Your task to perform on an android device: delete browsing data in the chrome app Image 0: 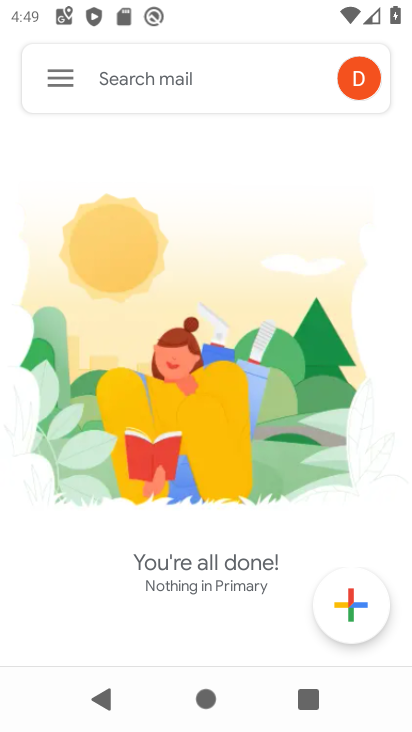
Step 0: press home button
Your task to perform on an android device: delete browsing data in the chrome app Image 1: 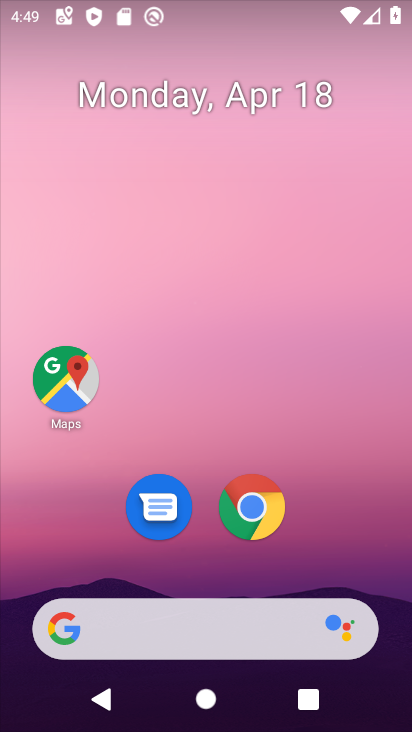
Step 1: click (267, 517)
Your task to perform on an android device: delete browsing data in the chrome app Image 2: 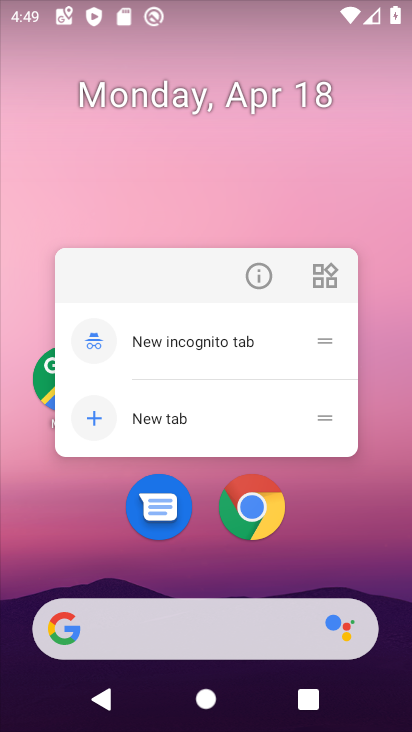
Step 2: click (251, 501)
Your task to perform on an android device: delete browsing data in the chrome app Image 3: 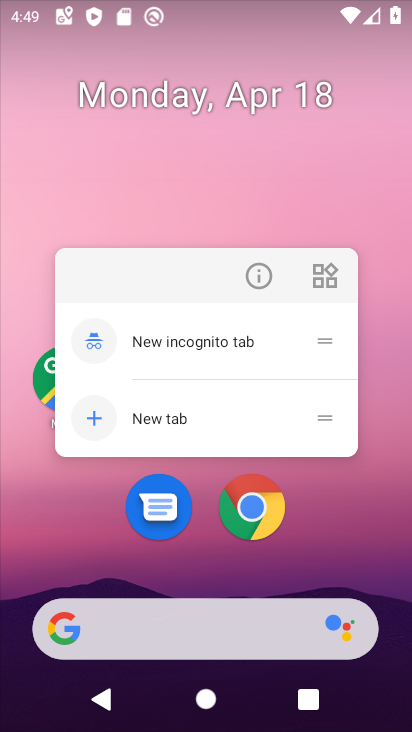
Step 3: click (251, 501)
Your task to perform on an android device: delete browsing data in the chrome app Image 4: 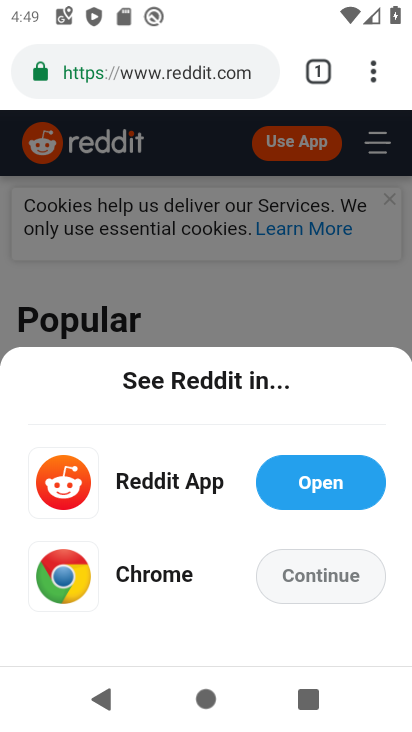
Step 4: click (381, 64)
Your task to perform on an android device: delete browsing data in the chrome app Image 5: 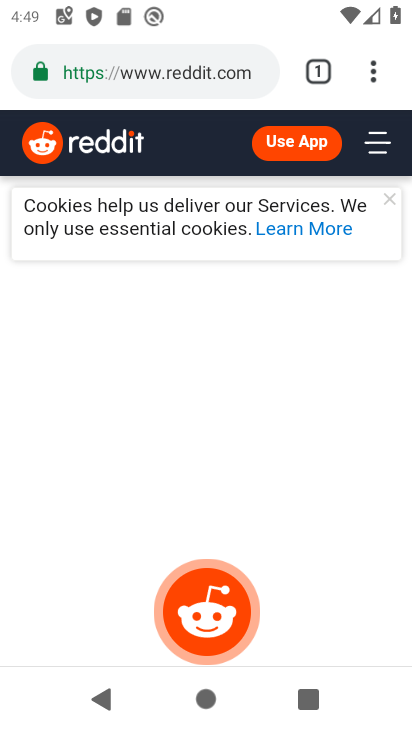
Step 5: click (382, 70)
Your task to perform on an android device: delete browsing data in the chrome app Image 6: 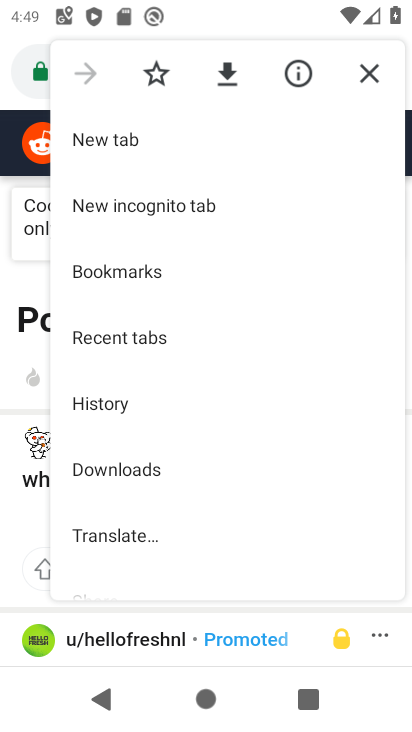
Step 6: drag from (281, 568) to (303, 120)
Your task to perform on an android device: delete browsing data in the chrome app Image 7: 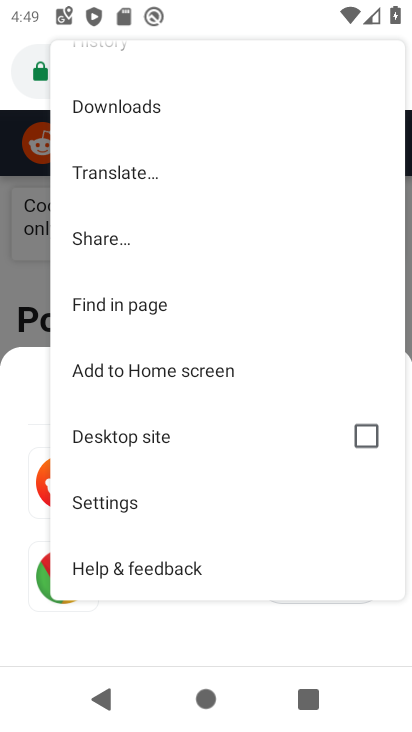
Step 7: click (157, 503)
Your task to perform on an android device: delete browsing data in the chrome app Image 8: 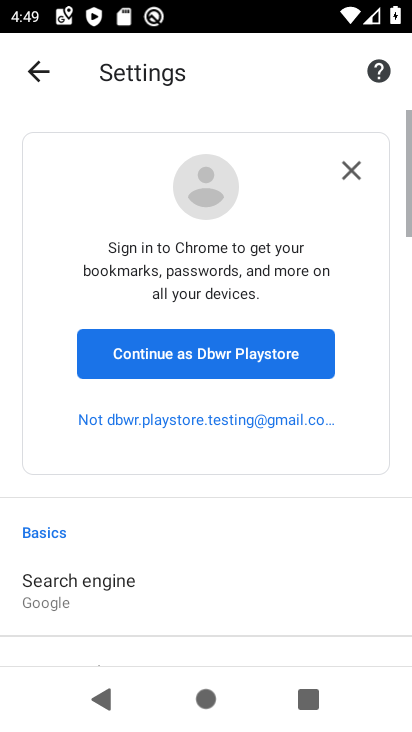
Step 8: drag from (177, 592) to (242, 97)
Your task to perform on an android device: delete browsing data in the chrome app Image 9: 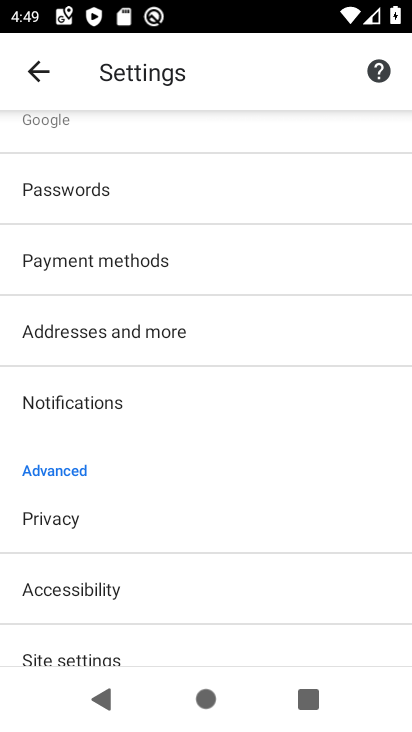
Step 9: click (129, 531)
Your task to perform on an android device: delete browsing data in the chrome app Image 10: 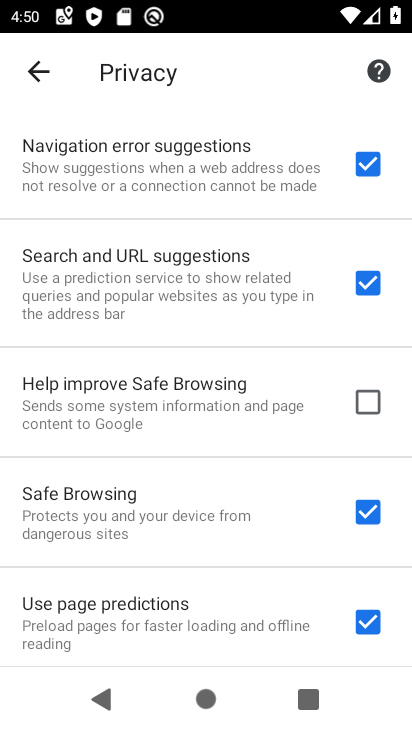
Step 10: drag from (244, 192) to (242, 67)
Your task to perform on an android device: delete browsing data in the chrome app Image 11: 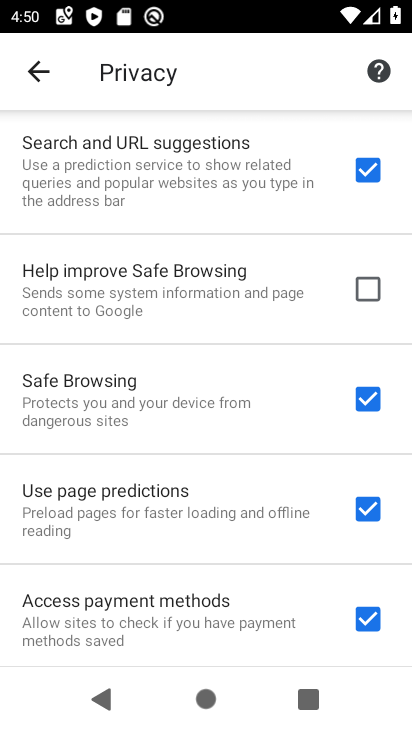
Step 11: drag from (230, 552) to (221, 158)
Your task to perform on an android device: delete browsing data in the chrome app Image 12: 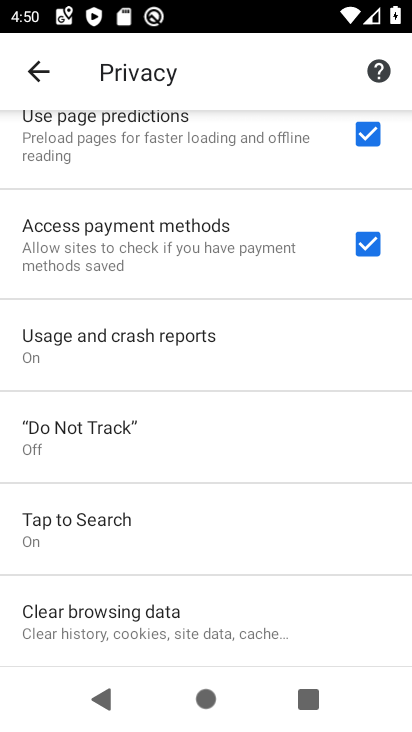
Step 12: drag from (196, 593) to (229, 259)
Your task to perform on an android device: delete browsing data in the chrome app Image 13: 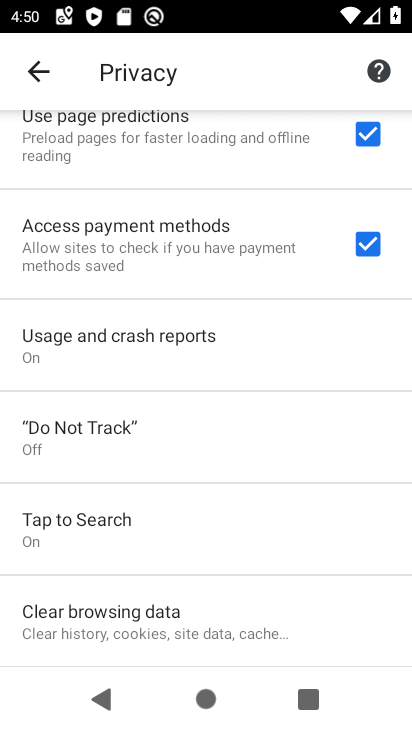
Step 13: click (210, 624)
Your task to perform on an android device: delete browsing data in the chrome app Image 14: 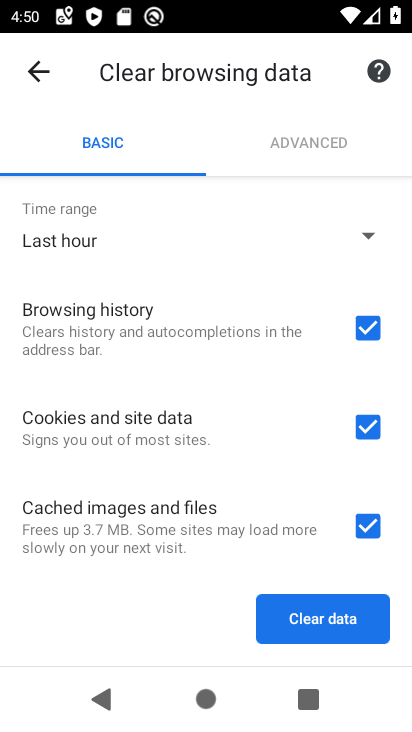
Step 14: click (334, 620)
Your task to perform on an android device: delete browsing data in the chrome app Image 15: 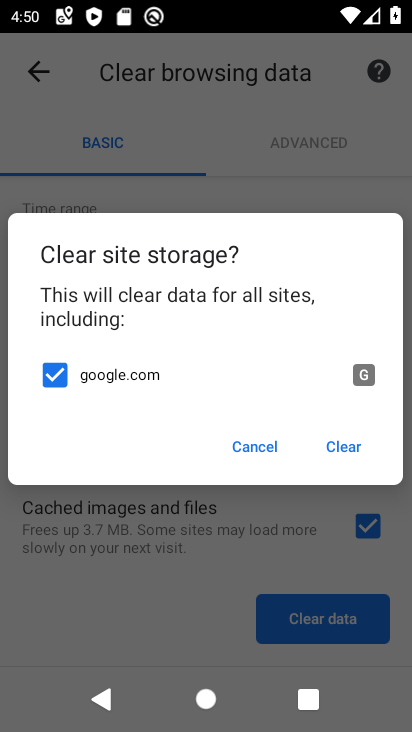
Step 15: click (359, 447)
Your task to perform on an android device: delete browsing data in the chrome app Image 16: 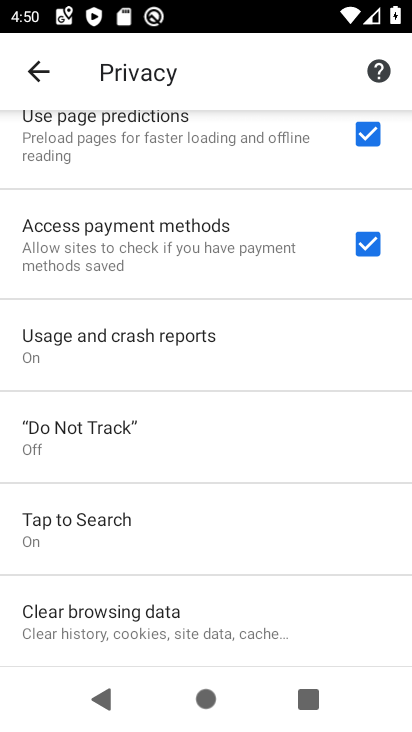
Step 16: task complete